Your task to perform on an android device: turn off picture-in-picture Image 0: 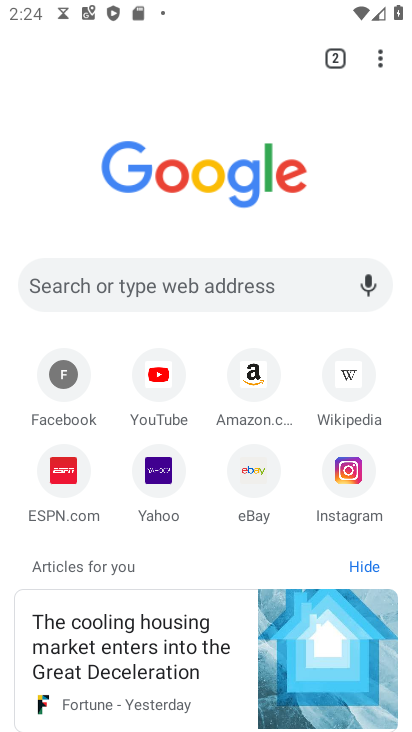
Step 0: press back button
Your task to perform on an android device: turn off picture-in-picture Image 1: 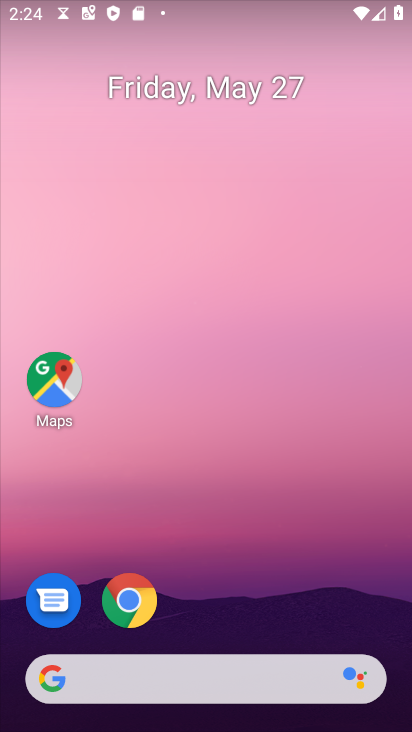
Step 1: drag from (268, 588) to (242, 36)
Your task to perform on an android device: turn off picture-in-picture Image 2: 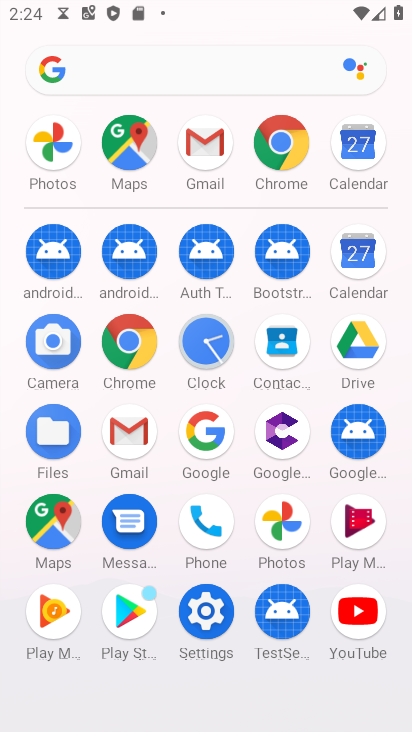
Step 2: drag from (21, 541) to (19, 265)
Your task to perform on an android device: turn off picture-in-picture Image 3: 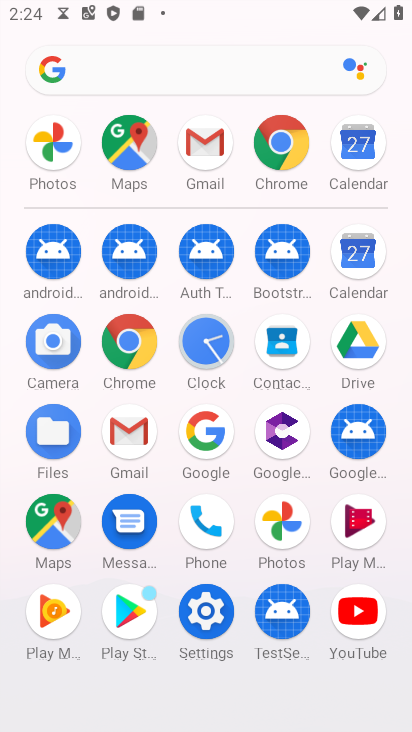
Step 3: click (205, 610)
Your task to perform on an android device: turn off picture-in-picture Image 4: 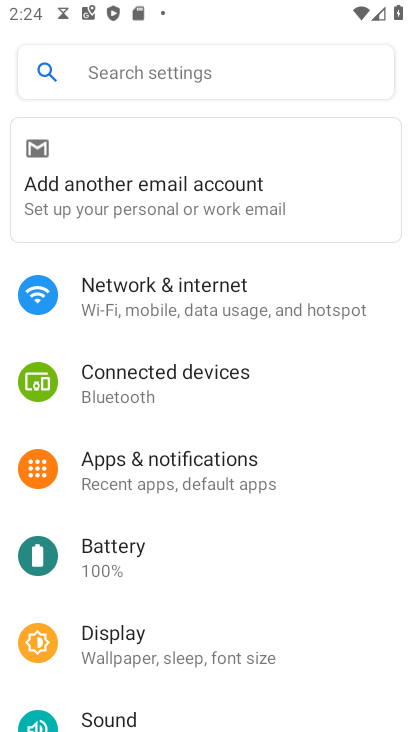
Step 4: drag from (315, 607) to (320, 203)
Your task to perform on an android device: turn off picture-in-picture Image 5: 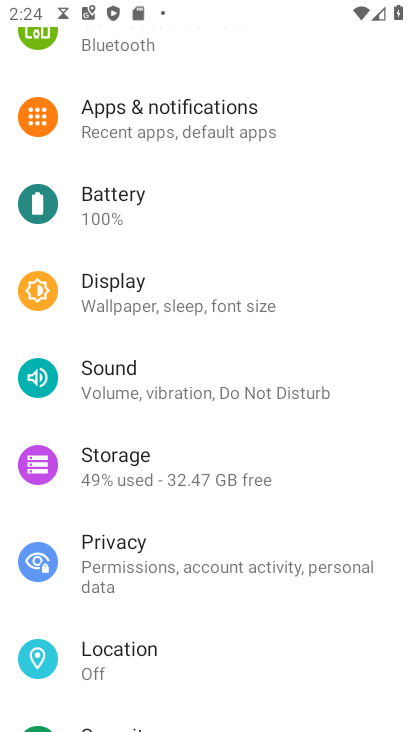
Step 5: drag from (285, 618) to (300, 178)
Your task to perform on an android device: turn off picture-in-picture Image 6: 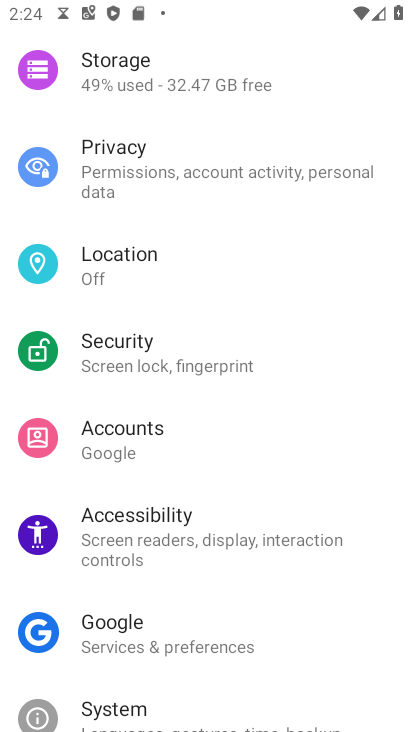
Step 6: drag from (313, 582) to (315, 172)
Your task to perform on an android device: turn off picture-in-picture Image 7: 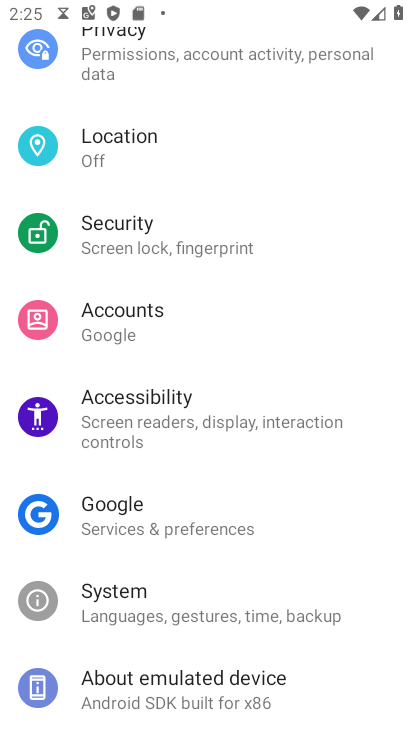
Step 7: click (186, 604)
Your task to perform on an android device: turn off picture-in-picture Image 8: 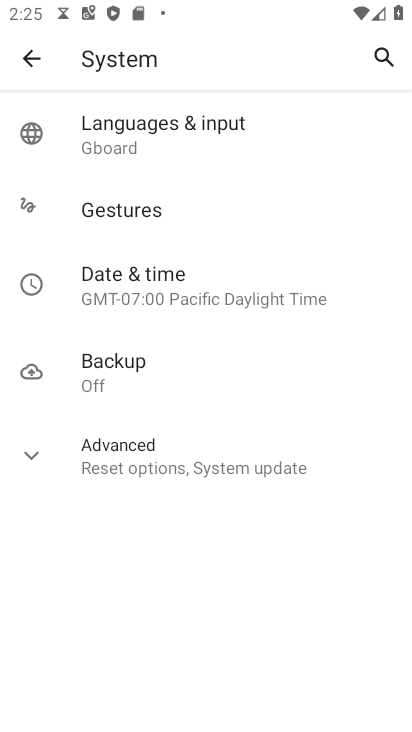
Step 8: click (66, 470)
Your task to perform on an android device: turn off picture-in-picture Image 9: 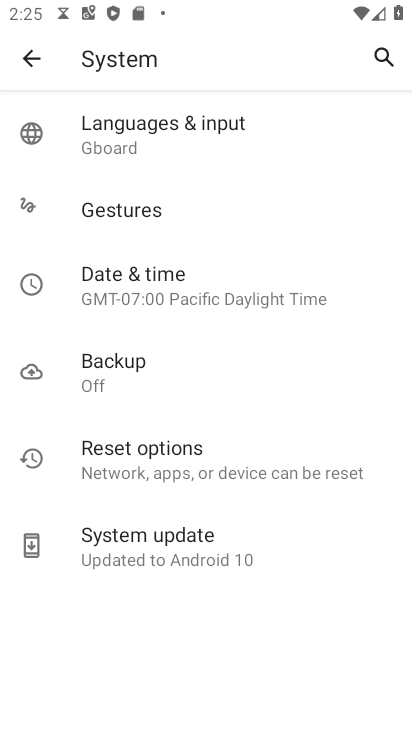
Step 9: click (25, 55)
Your task to perform on an android device: turn off picture-in-picture Image 10: 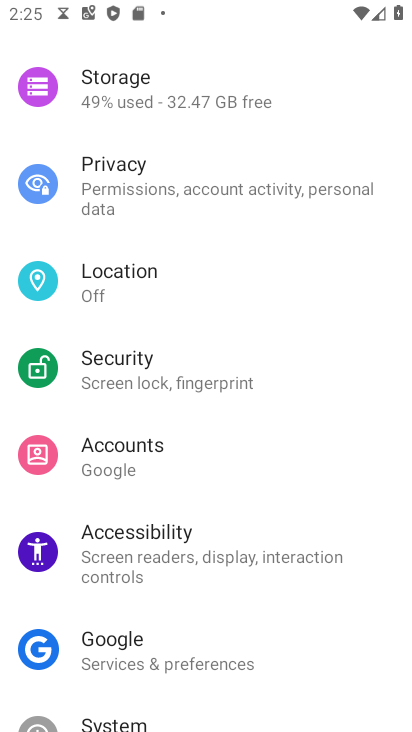
Step 10: drag from (299, 170) to (314, 669)
Your task to perform on an android device: turn off picture-in-picture Image 11: 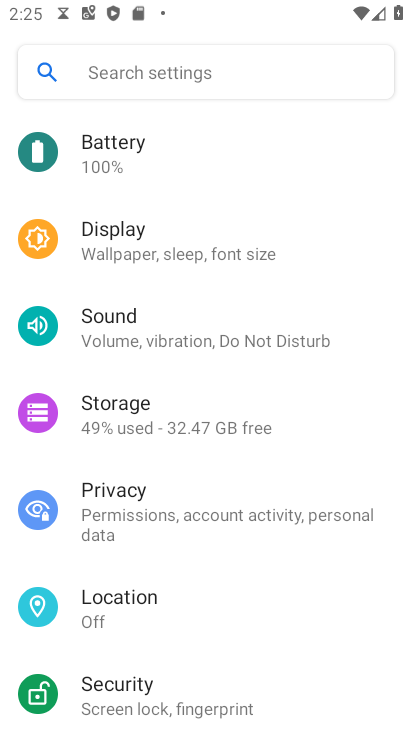
Step 11: drag from (264, 244) to (303, 638)
Your task to perform on an android device: turn off picture-in-picture Image 12: 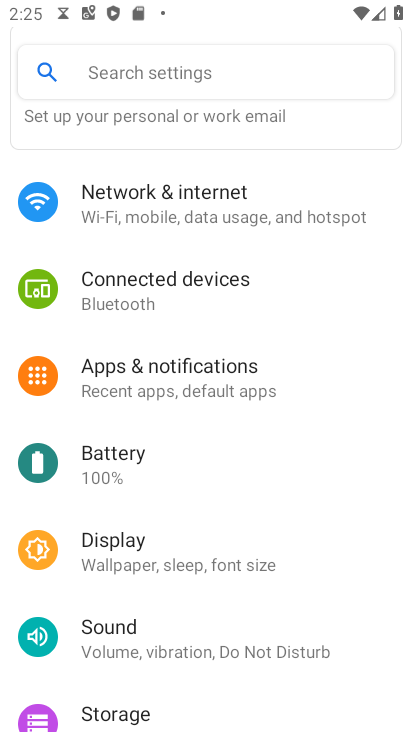
Step 12: click (181, 369)
Your task to perform on an android device: turn off picture-in-picture Image 13: 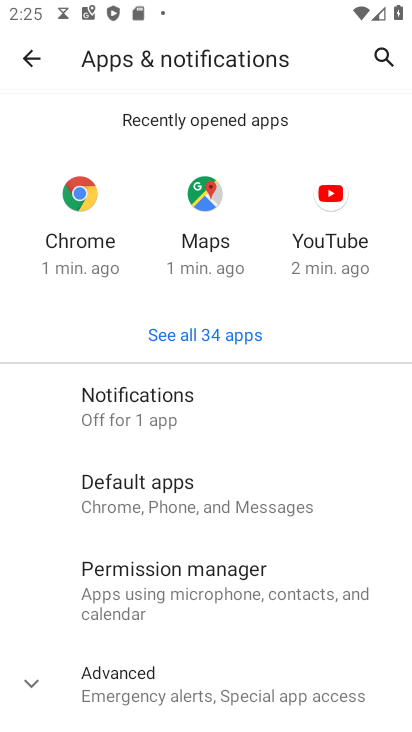
Step 13: click (31, 679)
Your task to perform on an android device: turn off picture-in-picture Image 14: 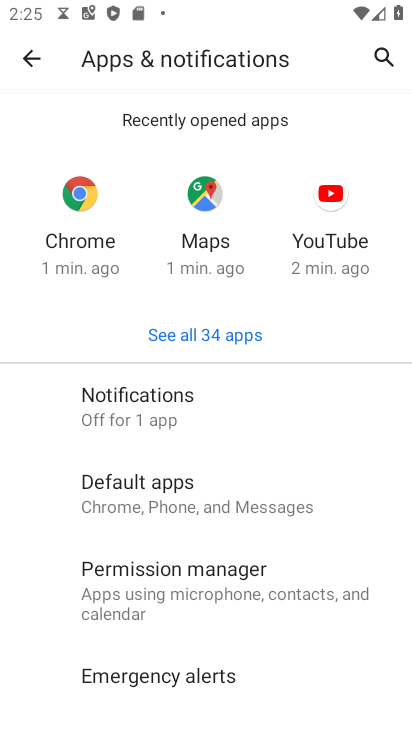
Step 14: click (226, 395)
Your task to perform on an android device: turn off picture-in-picture Image 15: 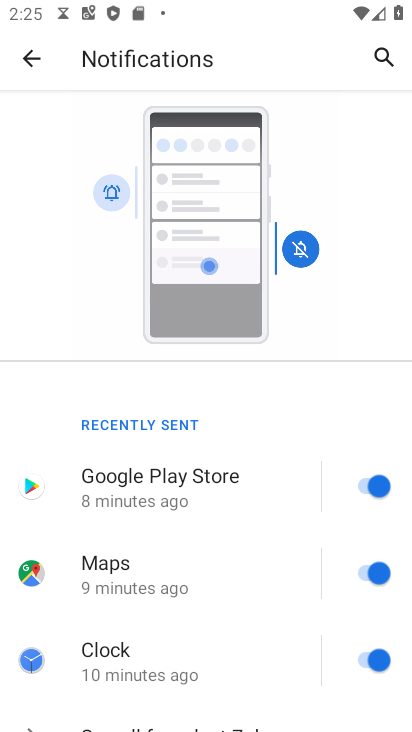
Step 15: drag from (243, 474) to (269, 186)
Your task to perform on an android device: turn off picture-in-picture Image 16: 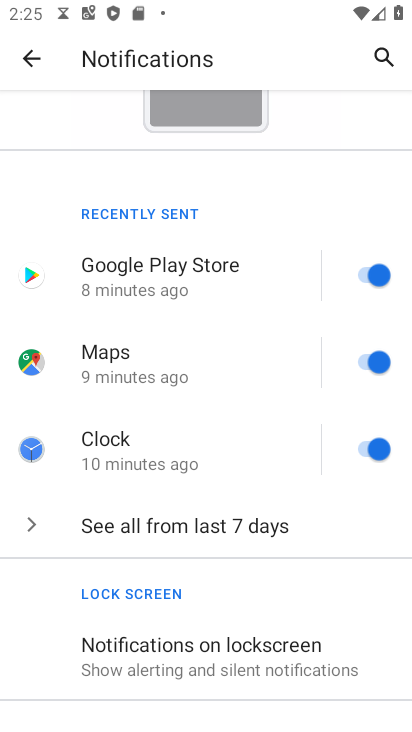
Step 16: drag from (248, 677) to (271, 336)
Your task to perform on an android device: turn off picture-in-picture Image 17: 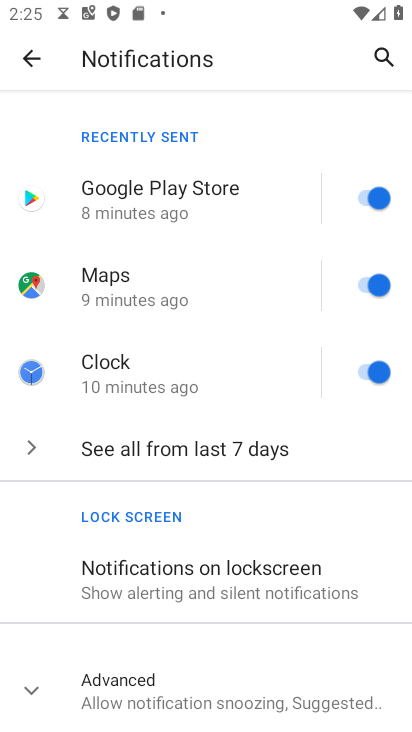
Step 17: click (66, 703)
Your task to perform on an android device: turn off picture-in-picture Image 18: 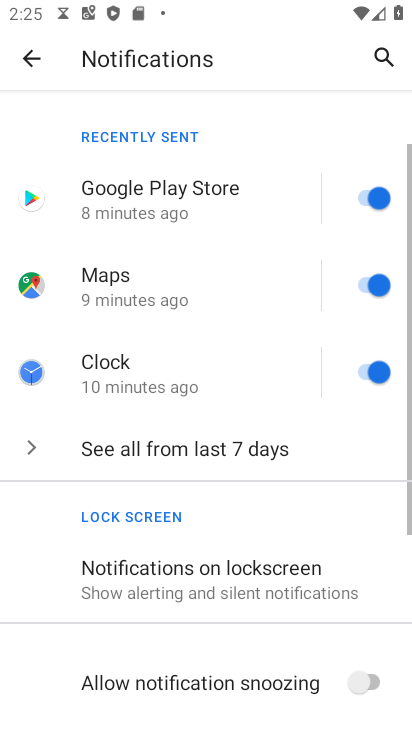
Step 18: drag from (240, 661) to (260, 336)
Your task to perform on an android device: turn off picture-in-picture Image 19: 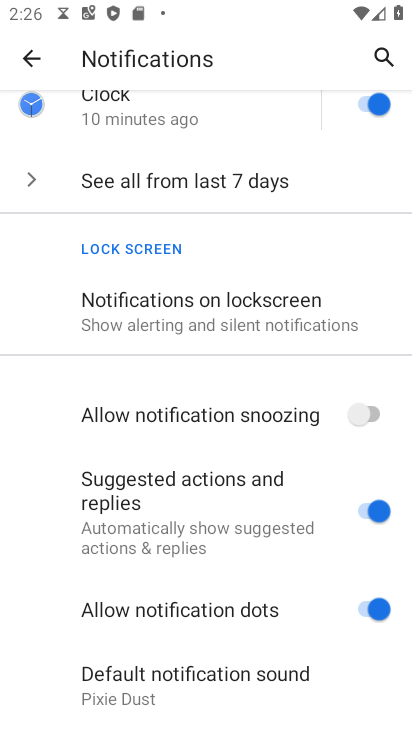
Step 19: click (358, 599)
Your task to perform on an android device: turn off picture-in-picture Image 20: 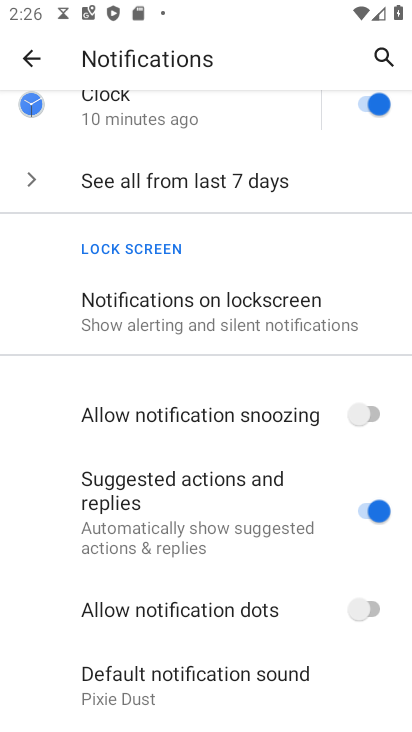
Step 20: task complete